Your task to perform on an android device: open a bookmark in the chrome app Image 0: 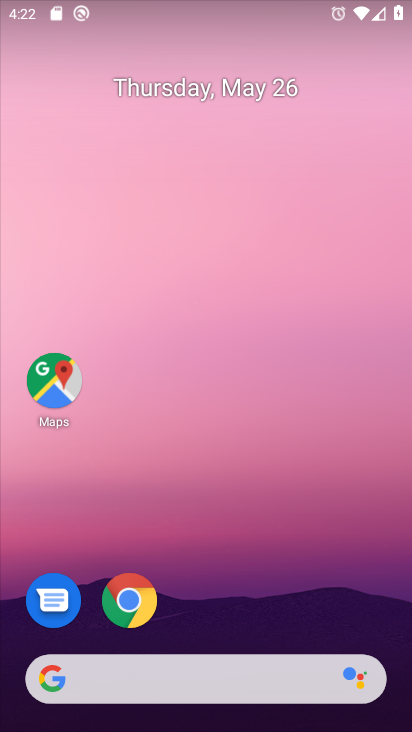
Step 0: drag from (222, 634) to (284, 9)
Your task to perform on an android device: open a bookmark in the chrome app Image 1: 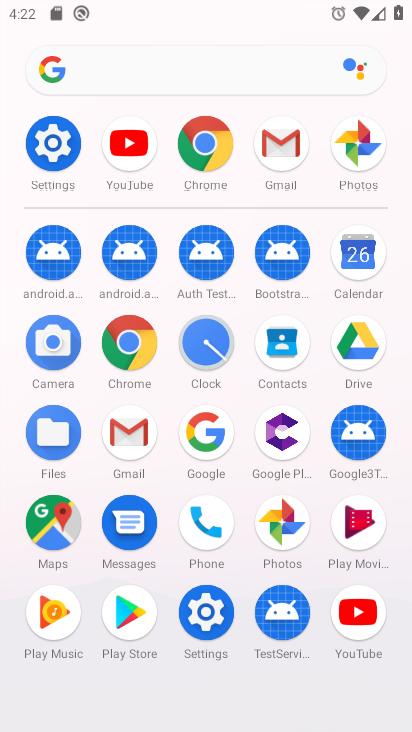
Step 1: click (129, 353)
Your task to perform on an android device: open a bookmark in the chrome app Image 2: 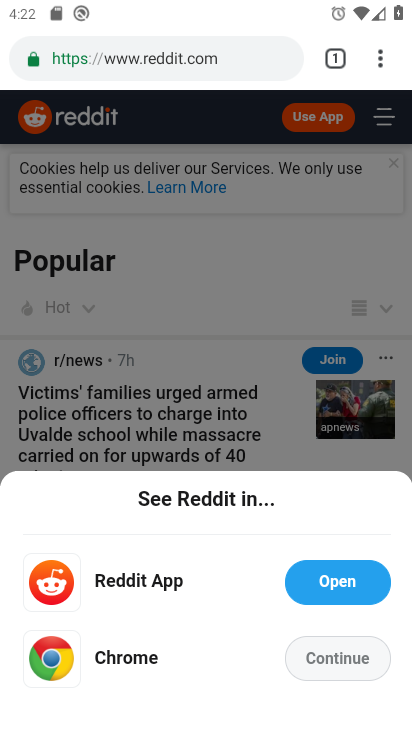
Step 2: click (379, 73)
Your task to perform on an android device: open a bookmark in the chrome app Image 3: 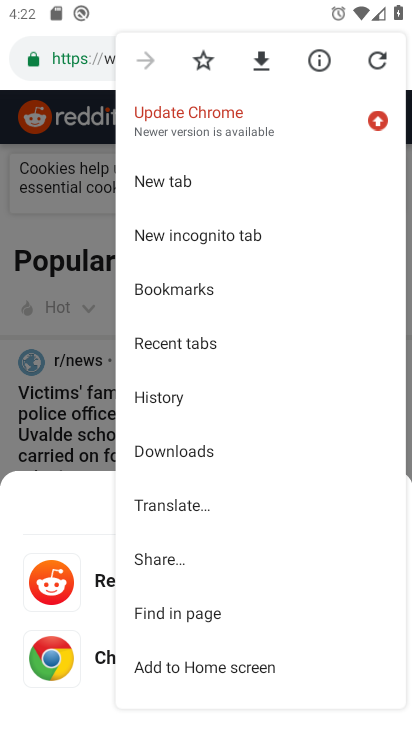
Step 3: click (193, 298)
Your task to perform on an android device: open a bookmark in the chrome app Image 4: 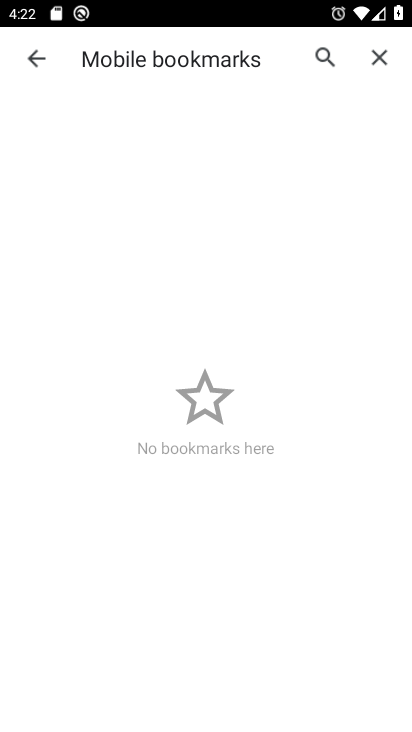
Step 4: task complete